Your task to perform on an android device: Open Yahoo.com Image 0: 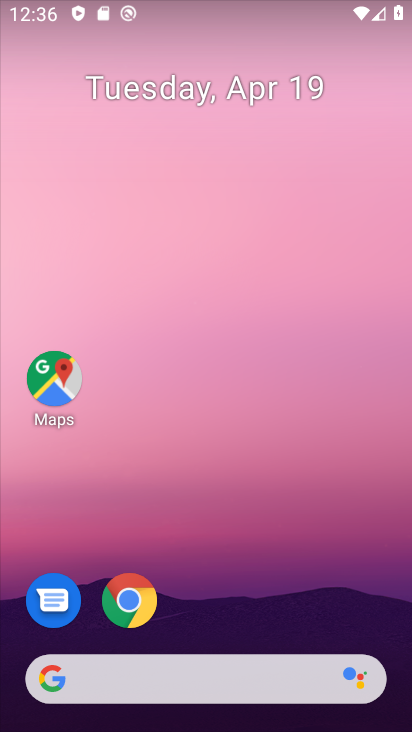
Step 0: click (146, 601)
Your task to perform on an android device: Open Yahoo.com Image 1: 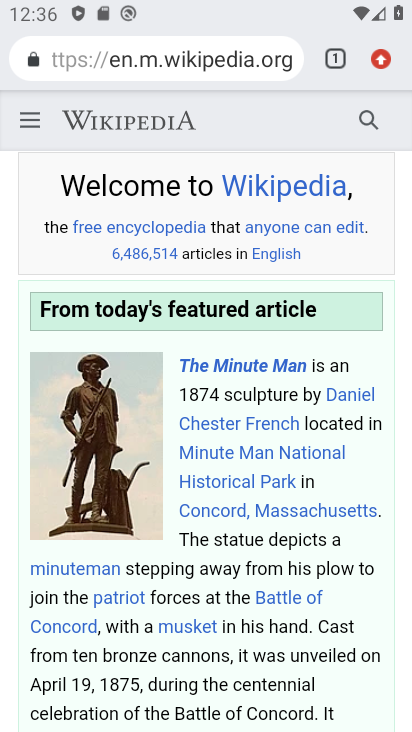
Step 1: click (338, 52)
Your task to perform on an android device: Open Yahoo.com Image 2: 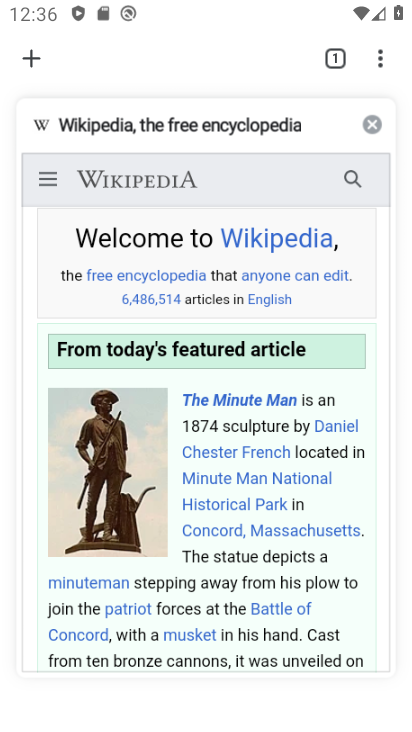
Step 2: click (32, 54)
Your task to perform on an android device: Open Yahoo.com Image 3: 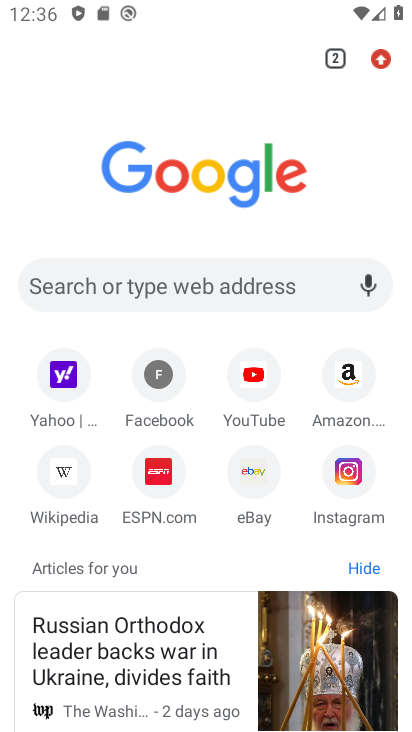
Step 3: click (50, 380)
Your task to perform on an android device: Open Yahoo.com Image 4: 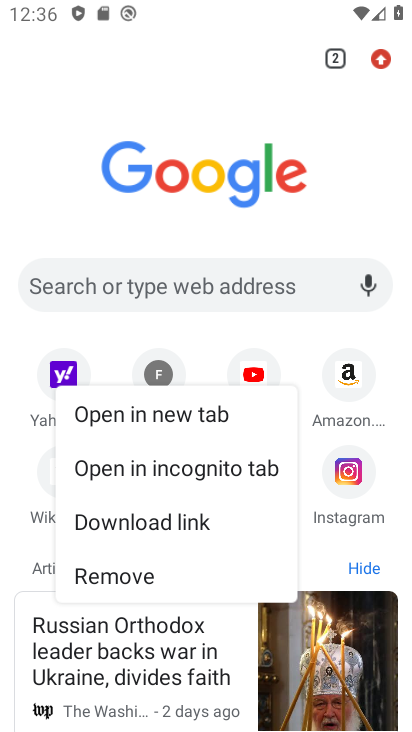
Step 4: click (50, 380)
Your task to perform on an android device: Open Yahoo.com Image 5: 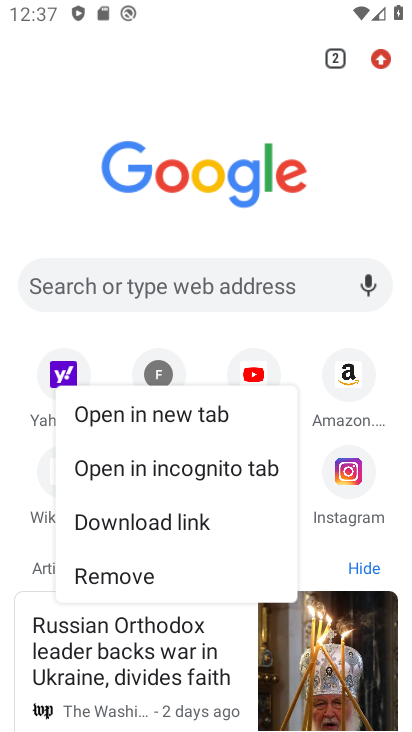
Step 5: click (60, 376)
Your task to perform on an android device: Open Yahoo.com Image 6: 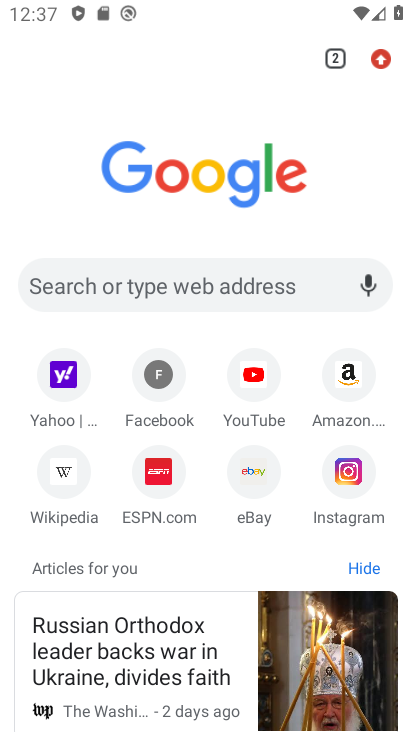
Step 6: click (61, 371)
Your task to perform on an android device: Open Yahoo.com Image 7: 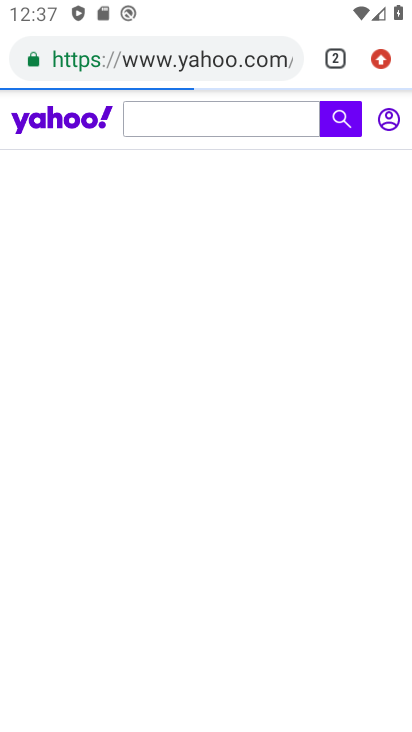
Step 7: task complete